Your task to perform on an android device: Is it going to rain tomorrow? Image 0: 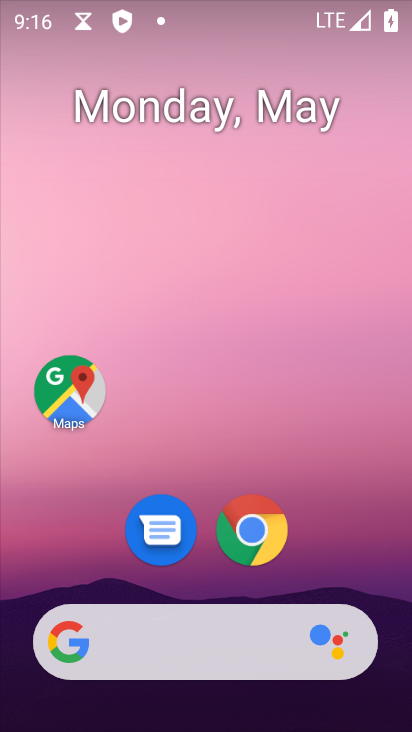
Step 0: drag from (337, 524) to (227, 10)
Your task to perform on an android device: Is it going to rain tomorrow? Image 1: 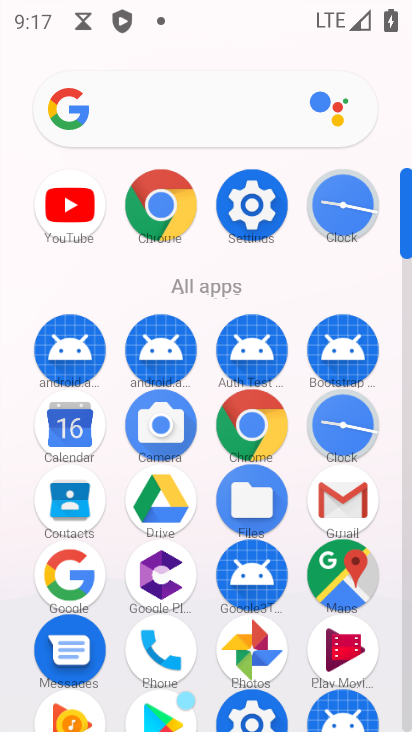
Step 1: click (160, 202)
Your task to perform on an android device: Is it going to rain tomorrow? Image 2: 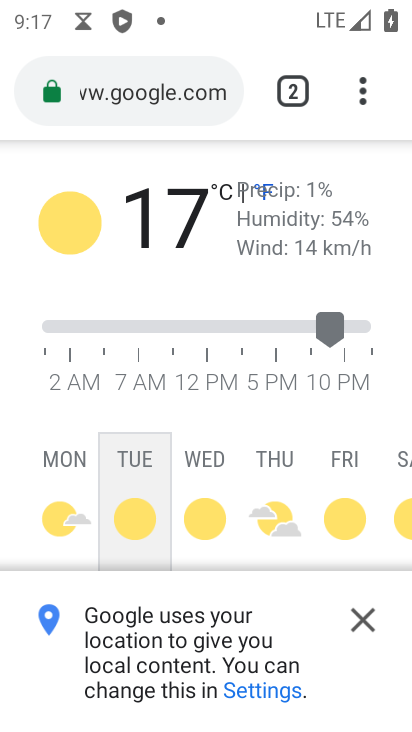
Step 2: click (119, 89)
Your task to perform on an android device: Is it going to rain tomorrow? Image 3: 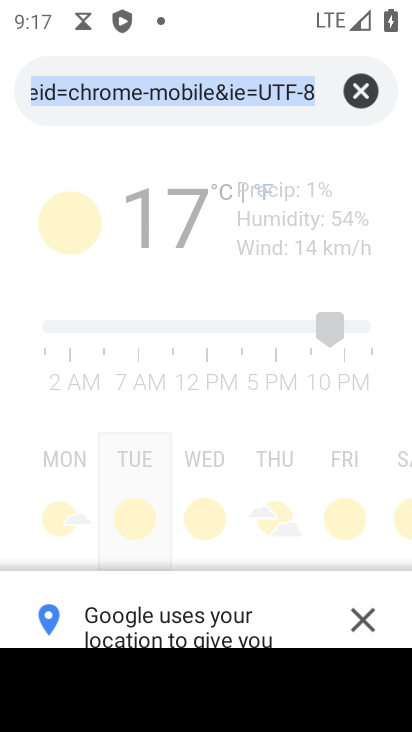
Step 3: click (359, 84)
Your task to perform on an android device: Is it going to rain tomorrow? Image 4: 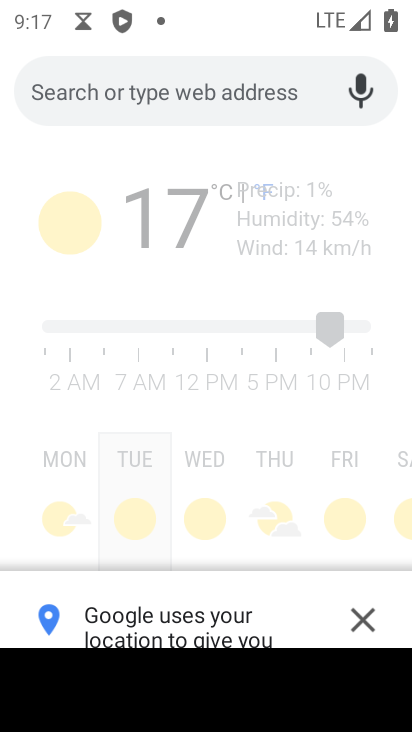
Step 4: type "Is it going to rain tomorrow?"
Your task to perform on an android device: Is it going to rain tomorrow? Image 5: 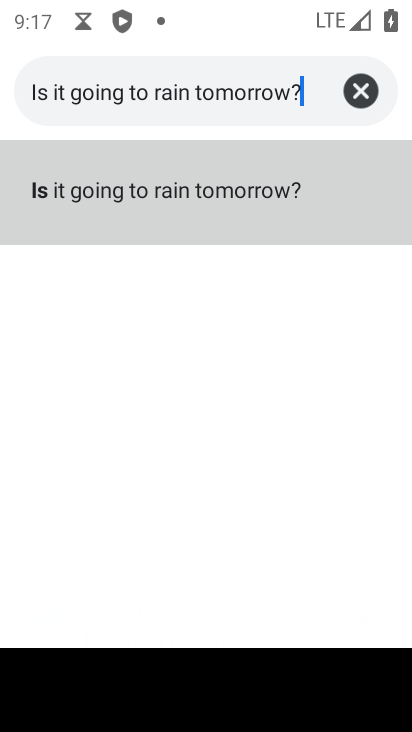
Step 5: type ""
Your task to perform on an android device: Is it going to rain tomorrow? Image 6: 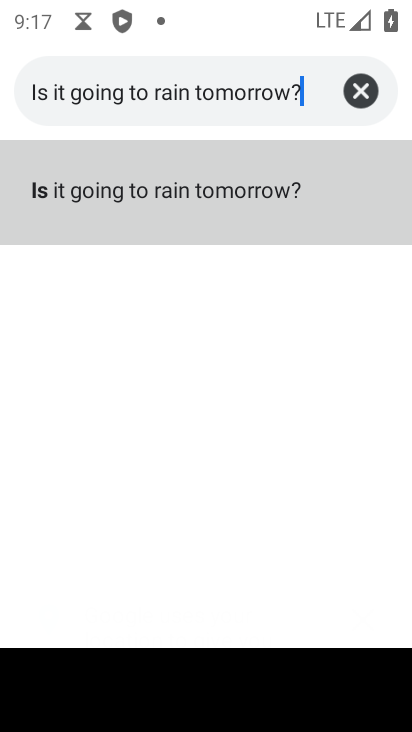
Step 6: click (265, 185)
Your task to perform on an android device: Is it going to rain tomorrow? Image 7: 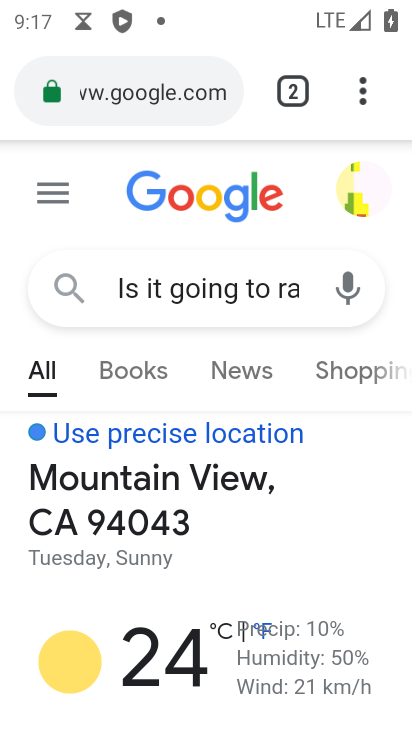
Step 7: task complete